Your task to perform on an android device: Open calendar and show me the fourth week of next month Image 0: 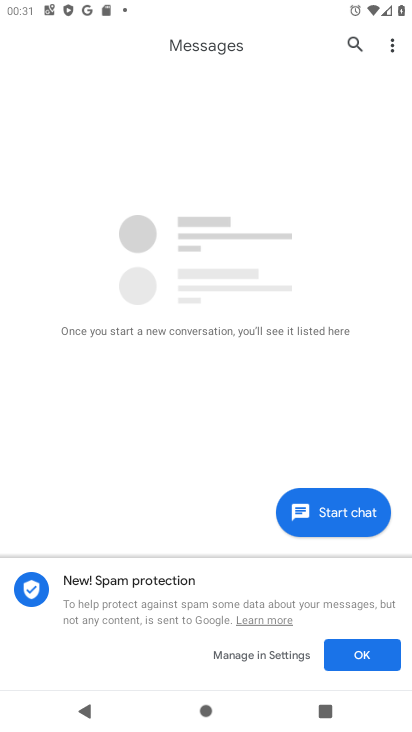
Step 0: press home button
Your task to perform on an android device: Open calendar and show me the fourth week of next month Image 1: 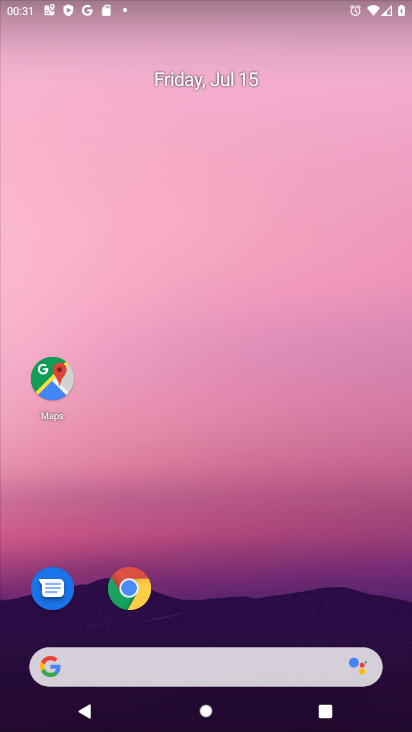
Step 1: drag from (210, 673) to (382, 37)
Your task to perform on an android device: Open calendar and show me the fourth week of next month Image 2: 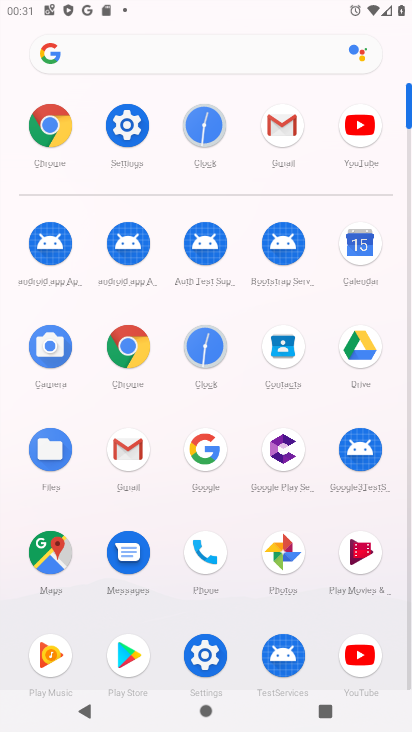
Step 2: click (364, 251)
Your task to perform on an android device: Open calendar and show me the fourth week of next month Image 3: 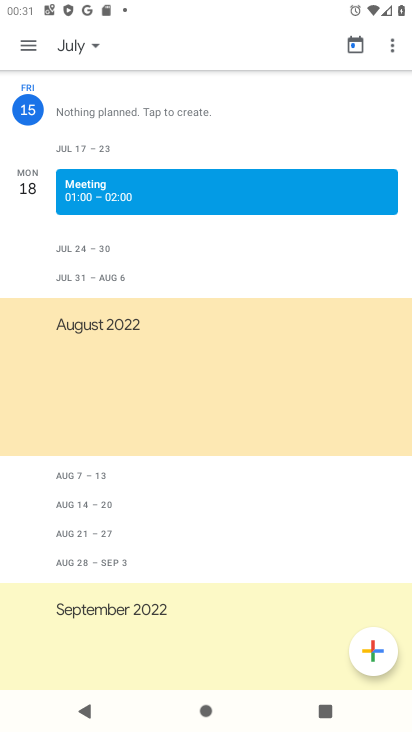
Step 3: click (72, 47)
Your task to perform on an android device: Open calendar and show me the fourth week of next month Image 4: 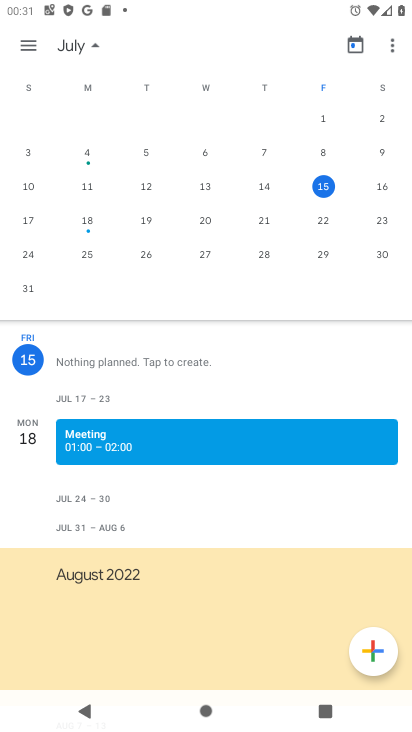
Step 4: drag from (372, 229) to (69, 229)
Your task to perform on an android device: Open calendar and show me the fourth week of next month Image 5: 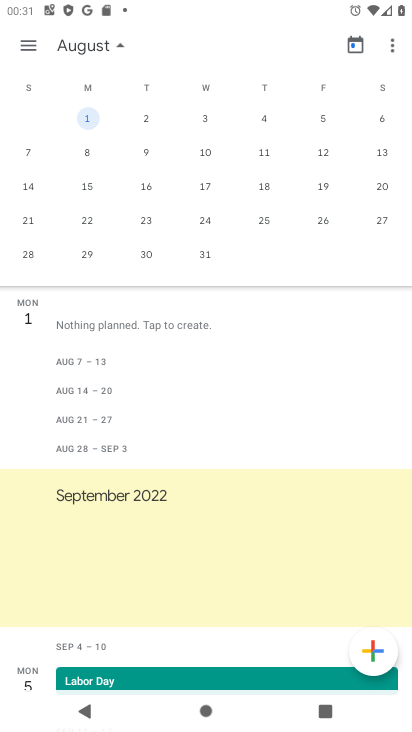
Step 5: click (30, 226)
Your task to perform on an android device: Open calendar and show me the fourth week of next month Image 6: 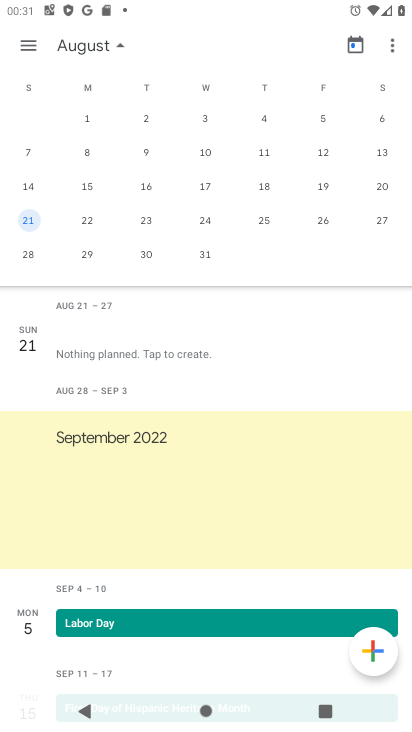
Step 6: click (28, 42)
Your task to perform on an android device: Open calendar and show me the fourth week of next month Image 7: 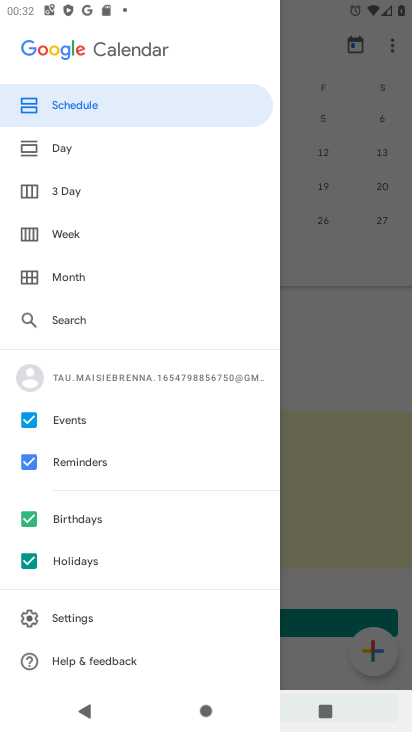
Step 7: click (82, 235)
Your task to perform on an android device: Open calendar and show me the fourth week of next month Image 8: 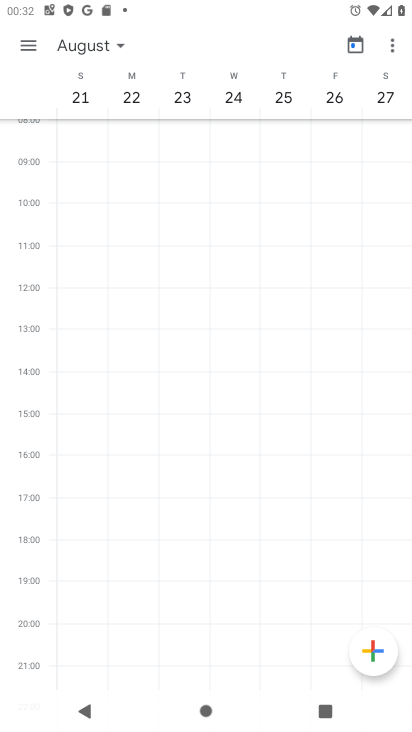
Step 8: task complete